Your task to perform on an android device: Open settings Image 0: 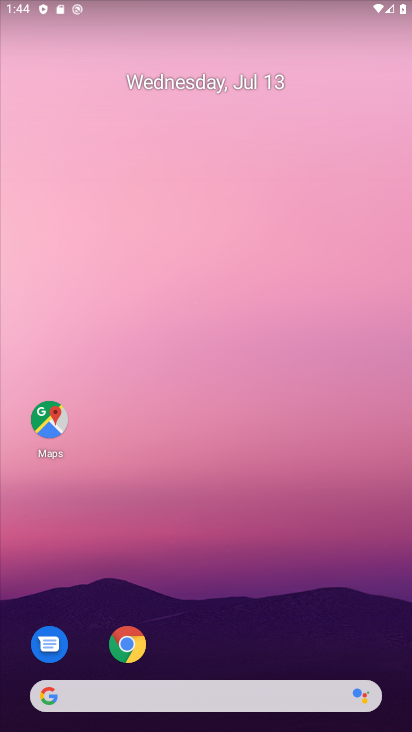
Step 0: drag from (222, 627) to (270, 64)
Your task to perform on an android device: Open settings Image 1: 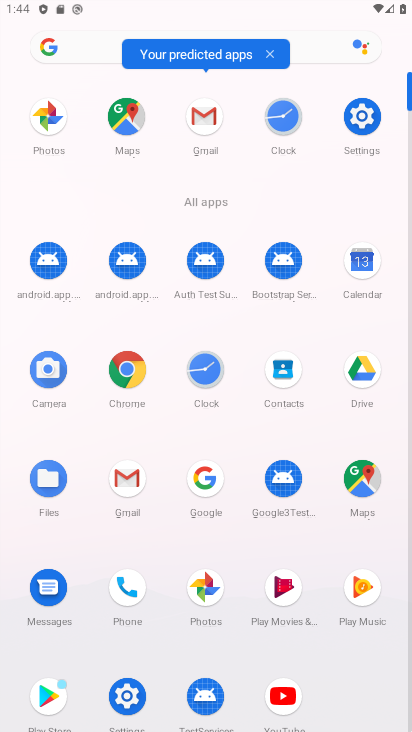
Step 1: click (346, 102)
Your task to perform on an android device: Open settings Image 2: 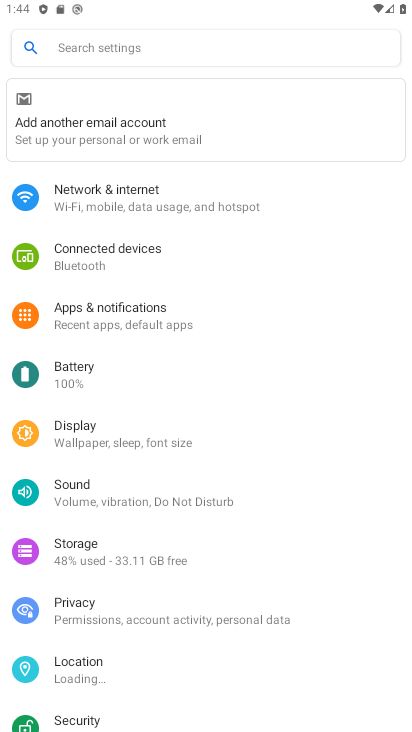
Step 2: task complete